Your task to perform on an android device: Go to settings Image 0: 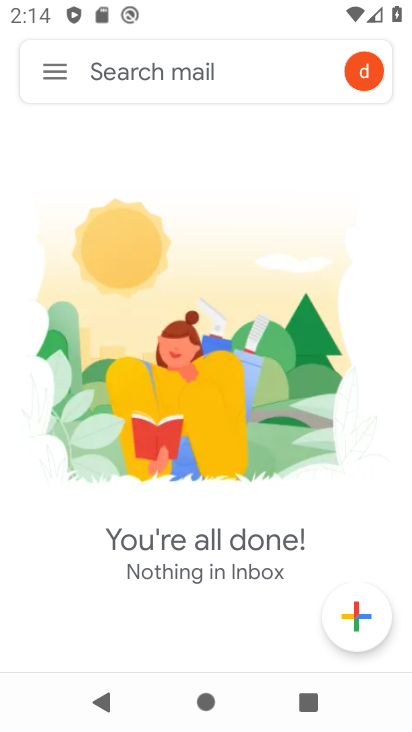
Step 0: press home button
Your task to perform on an android device: Go to settings Image 1: 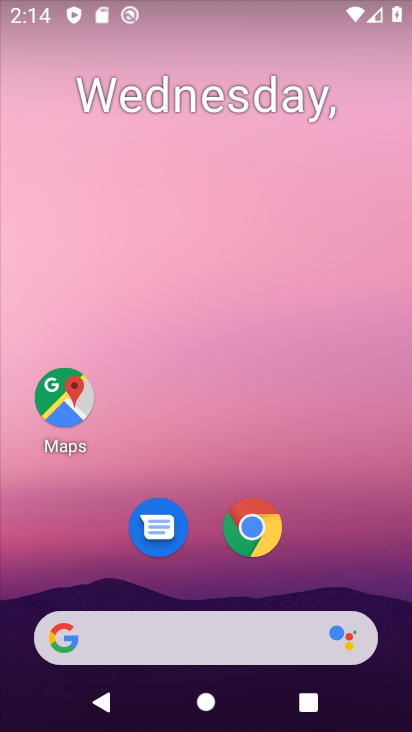
Step 1: drag from (312, 549) to (270, 160)
Your task to perform on an android device: Go to settings Image 2: 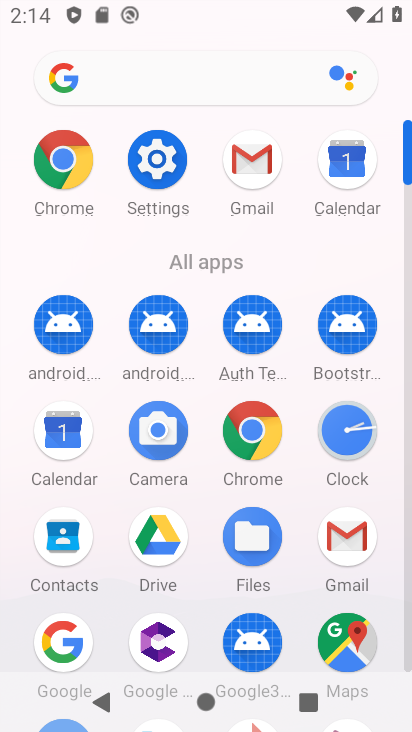
Step 2: click (157, 162)
Your task to perform on an android device: Go to settings Image 3: 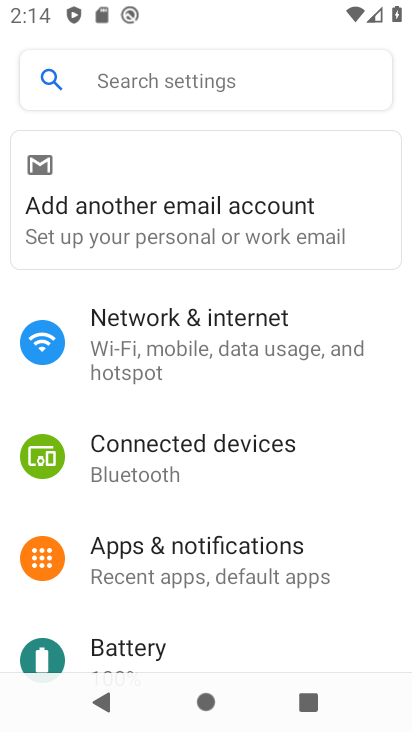
Step 3: task complete